Your task to perform on an android device: check storage Image 0: 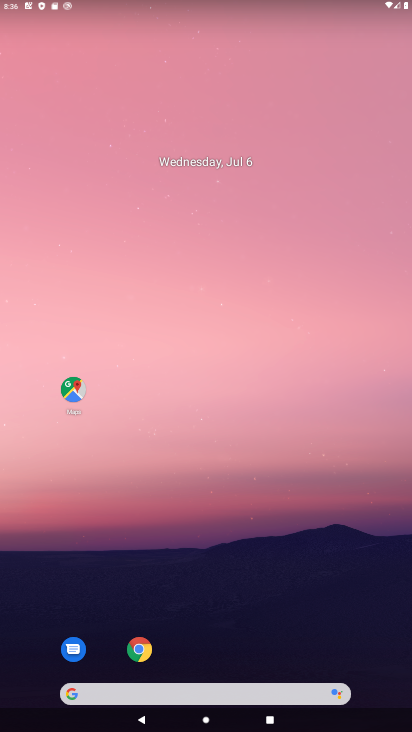
Step 0: drag from (225, 664) to (327, 43)
Your task to perform on an android device: check storage Image 1: 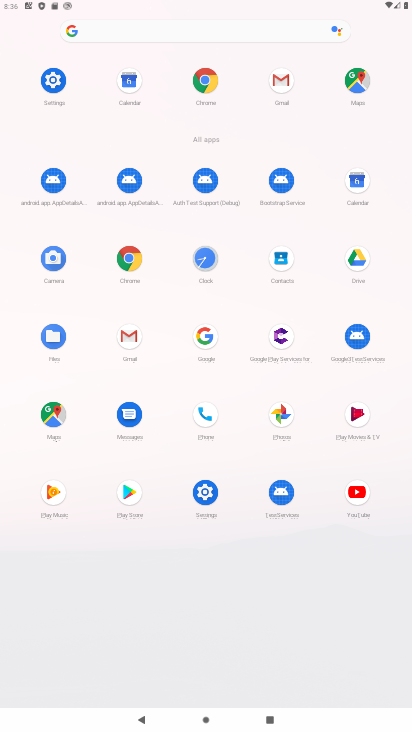
Step 1: click (212, 497)
Your task to perform on an android device: check storage Image 2: 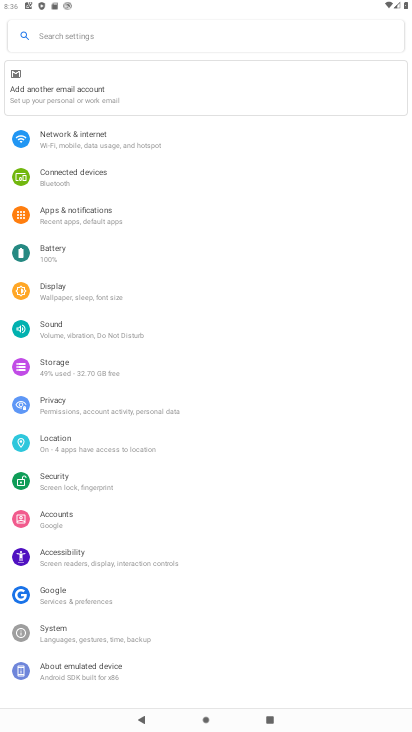
Step 2: click (107, 376)
Your task to perform on an android device: check storage Image 3: 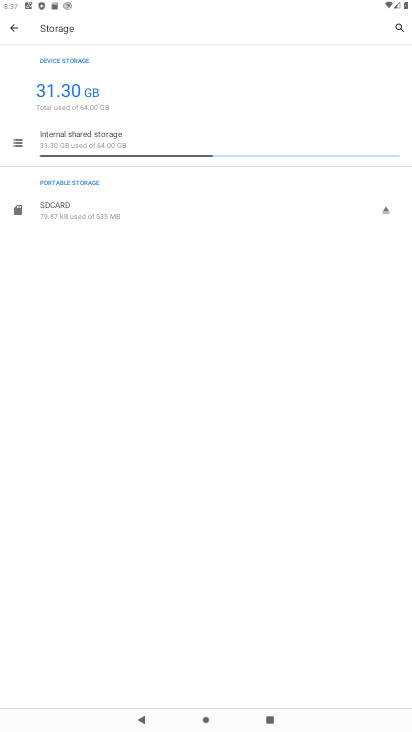
Step 3: click (149, 146)
Your task to perform on an android device: check storage Image 4: 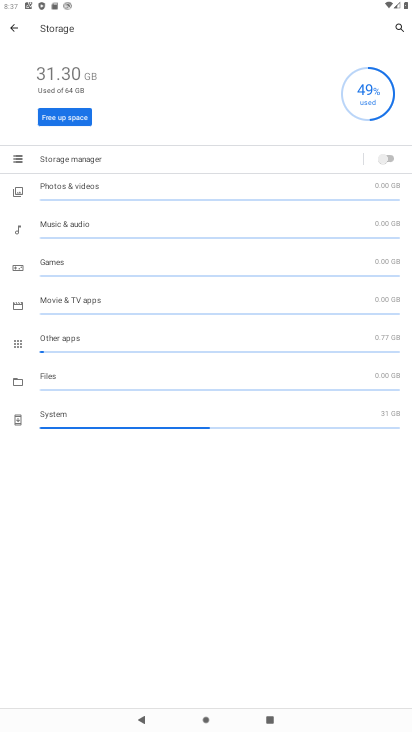
Step 4: task complete